Your task to perform on an android device: Open my contact list Image 0: 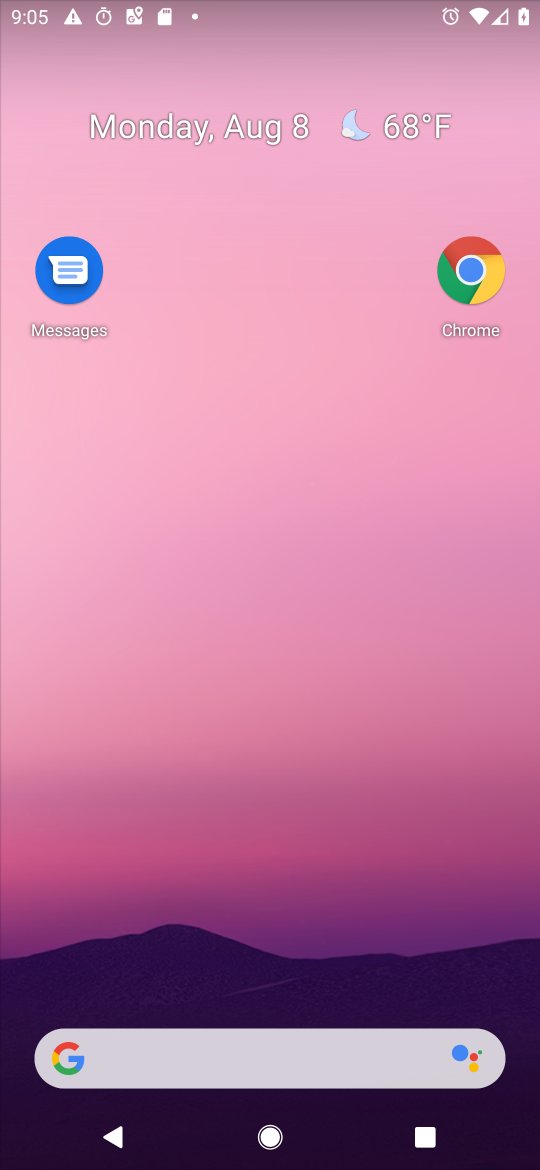
Step 0: press home button
Your task to perform on an android device: Open my contact list Image 1: 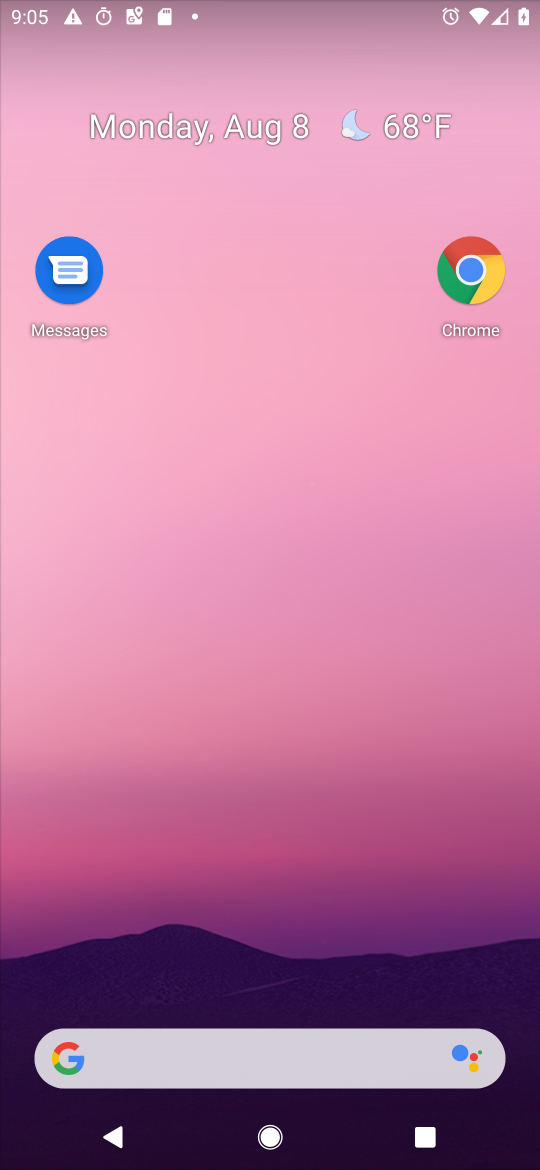
Step 1: drag from (136, 925) to (323, 218)
Your task to perform on an android device: Open my contact list Image 2: 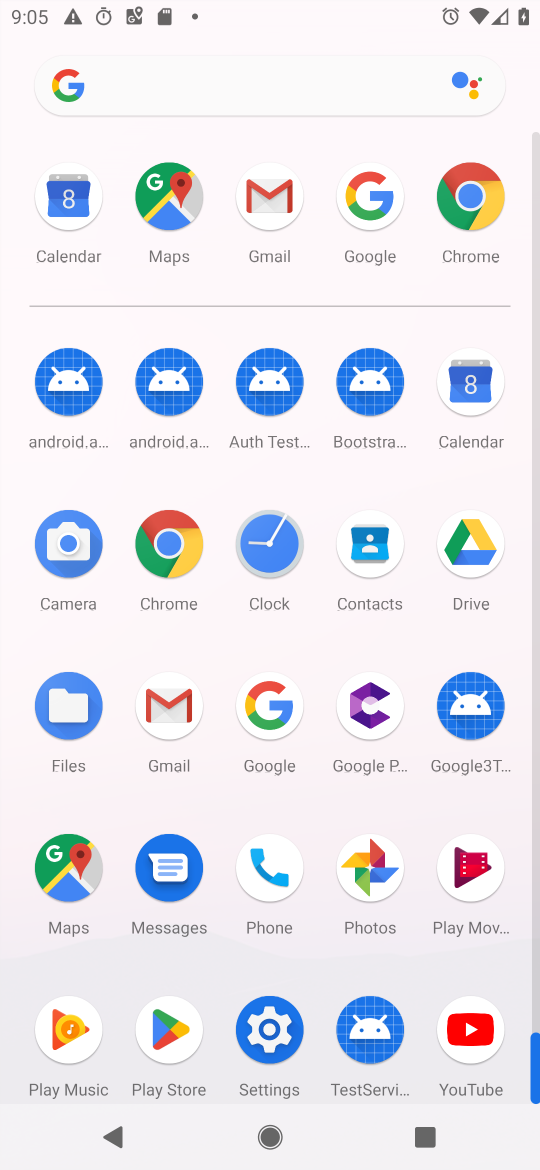
Step 2: click (367, 556)
Your task to perform on an android device: Open my contact list Image 3: 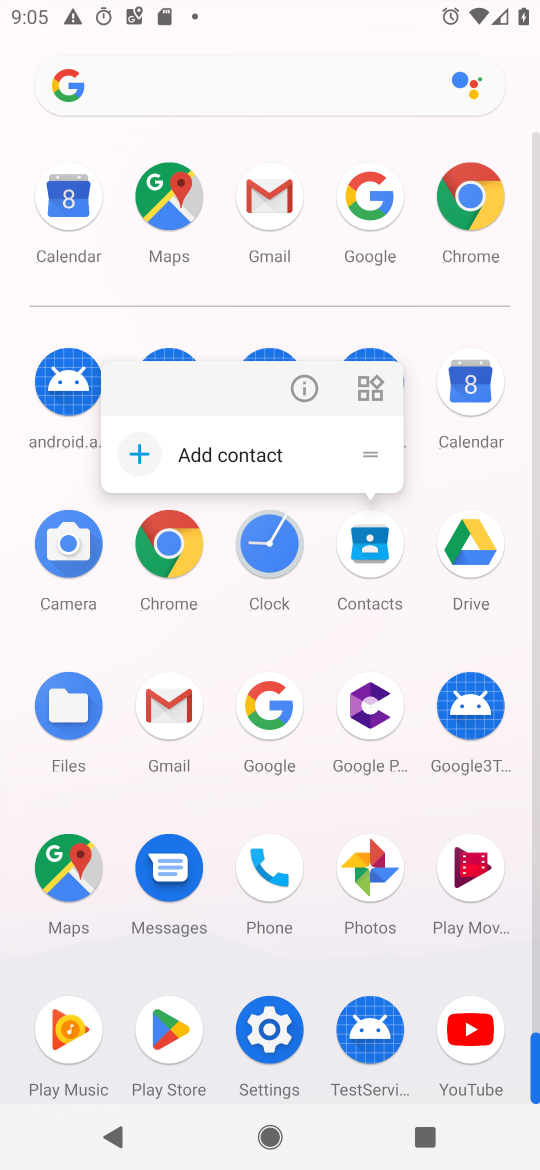
Step 3: click (307, 392)
Your task to perform on an android device: Open my contact list Image 4: 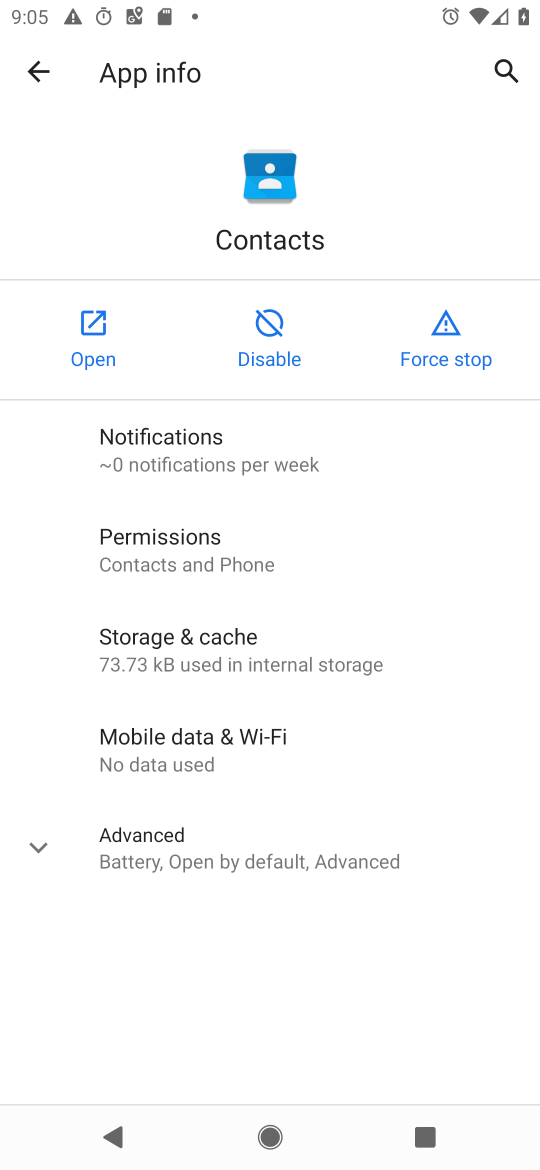
Step 4: click (101, 334)
Your task to perform on an android device: Open my contact list Image 5: 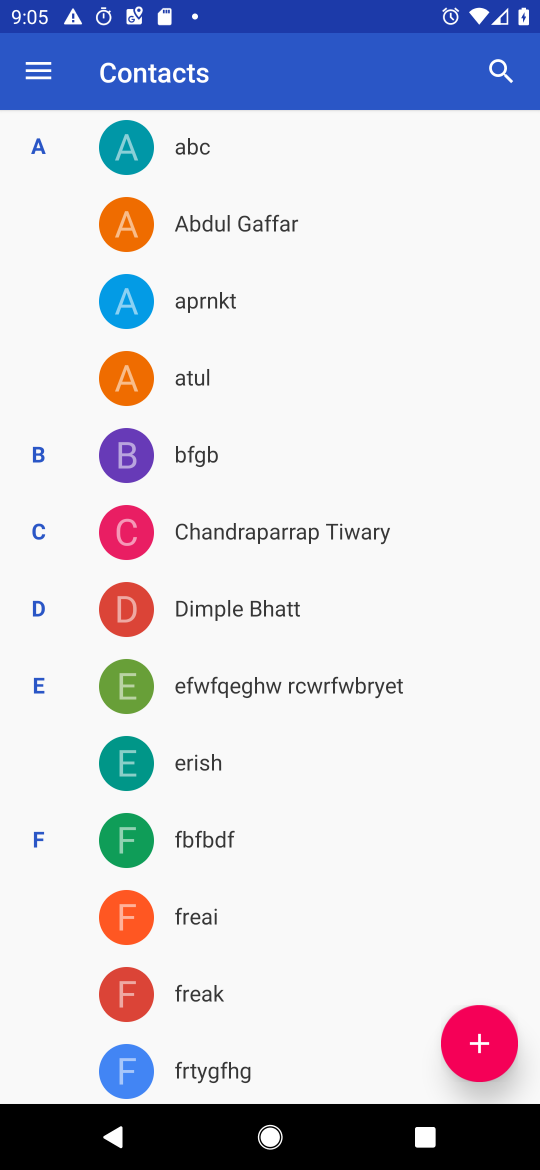
Step 5: task complete